Your task to perform on an android device: Open the stopwatch Image 0: 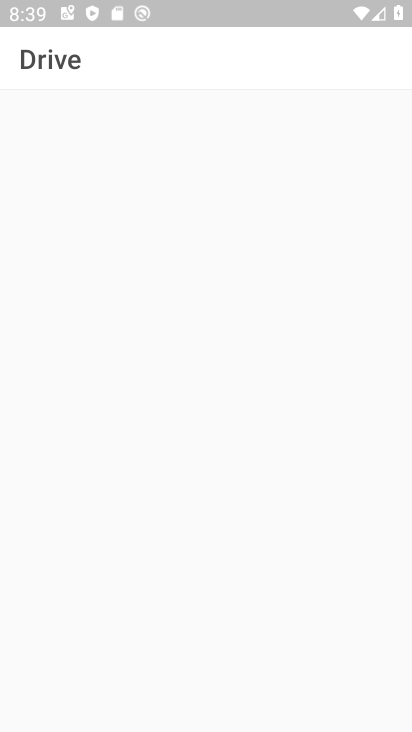
Step 0: press home button
Your task to perform on an android device: Open the stopwatch Image 1: 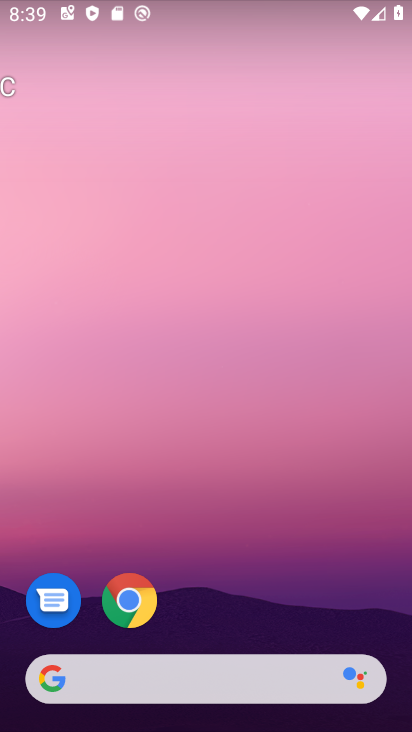
Step 1: drag from (215, 609) to (210, 150)
Your task to perform on an android device: Open the stopwatch Image 2: 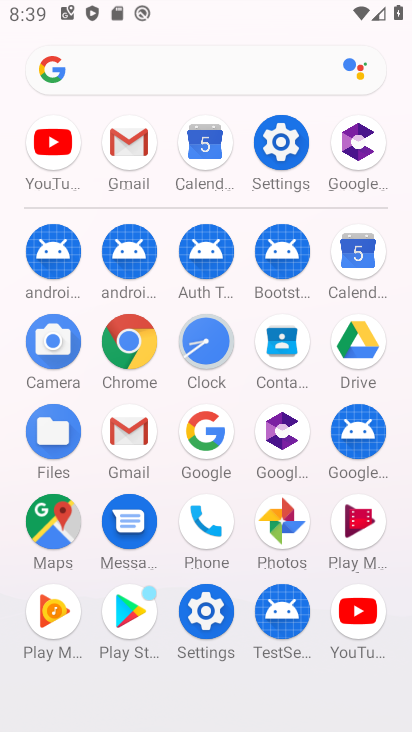
Step 2: click (214, 347)
Your task to perform on an android device: Open the stopwatch Image 3: 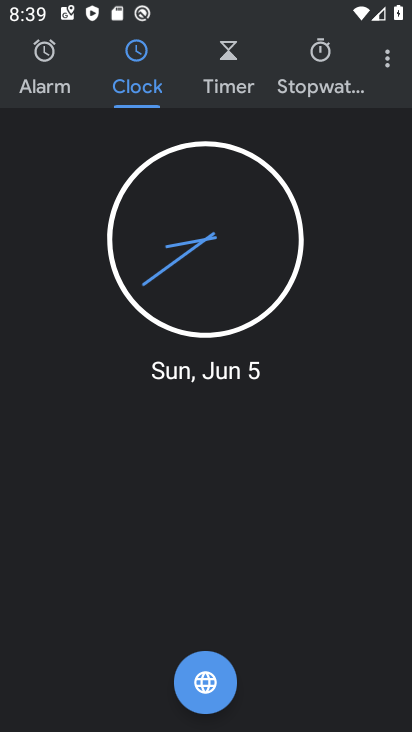
Step 3: click (330, 104)
Your task to perform on an android device: Open the stopwatch Image 4: 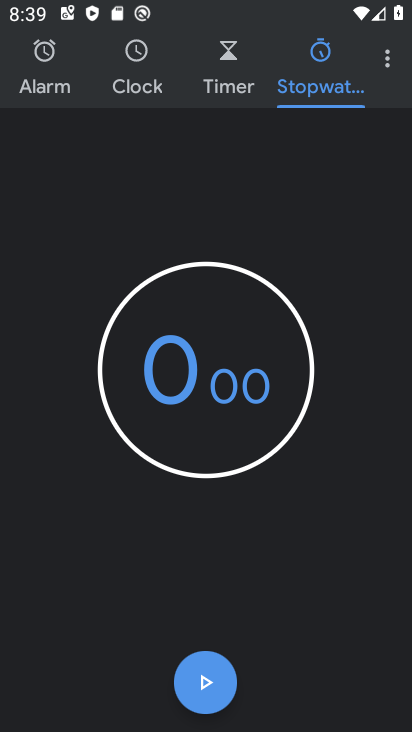
Step 4: click (330, 93)
Your task to perform on an android device: Open the stopwatch Image 5: 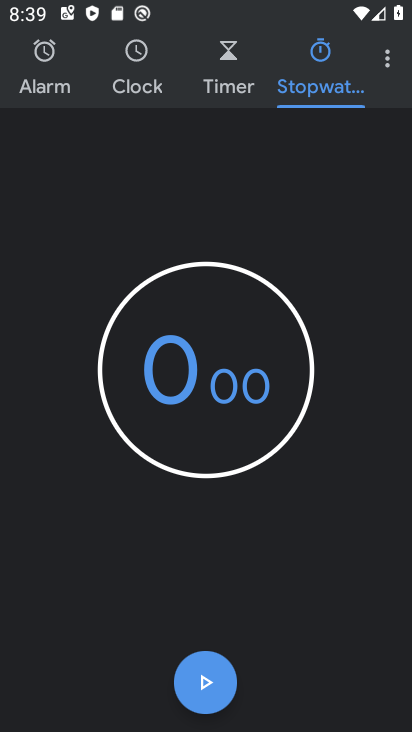
Step 5: task complete